Your task to perform on an android device: open app "Paramount+ | Peak Streaming" (install if not already installed) Image 0: 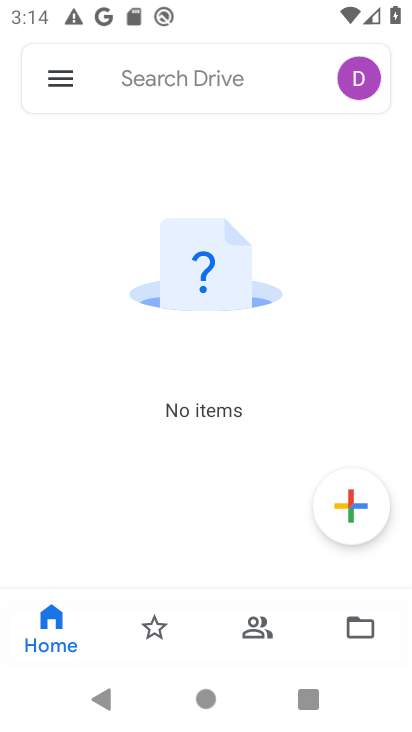
Step 0: press home button
Your task to perform on an android device: open app "Paramount+ | Peak Streaming" (install if not already installed) Image 1: 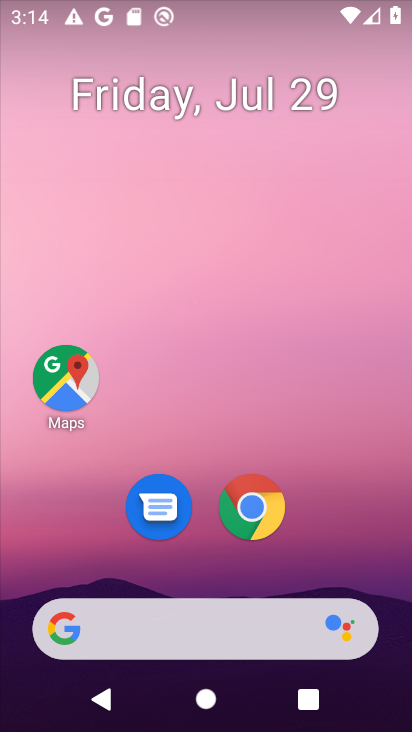
Step 1: click (237, 620)
Your task to perform on an android device: open app "Paramount+ | Peak Streaming" (install if not already installed) Image 2: 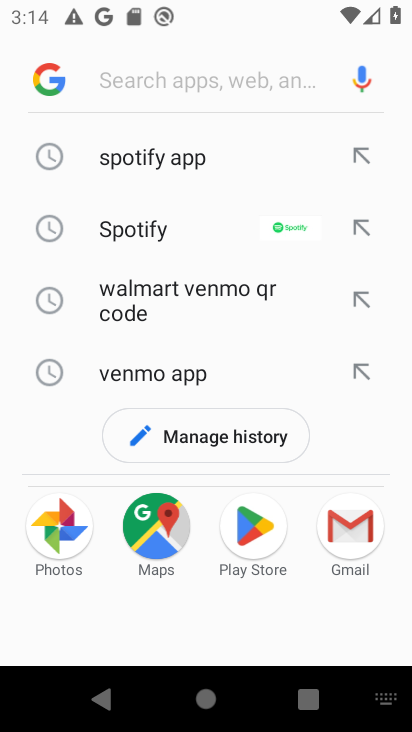
Step 2: type "paramount"
Your task to perform on an android device: open app "Paramount+ | Peak Streaming" (install if not already installed) Image 3: 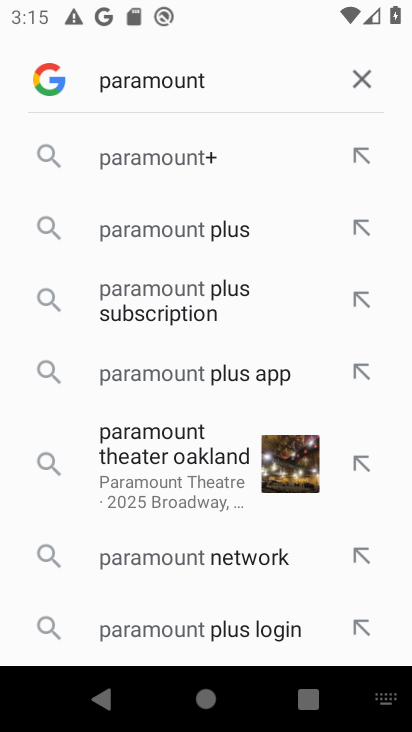
Step 3: click (172, 136)
Your task to perform on an android device: open app "Paramount+ | Peak Streaming" (install if not already installed) Image 4: 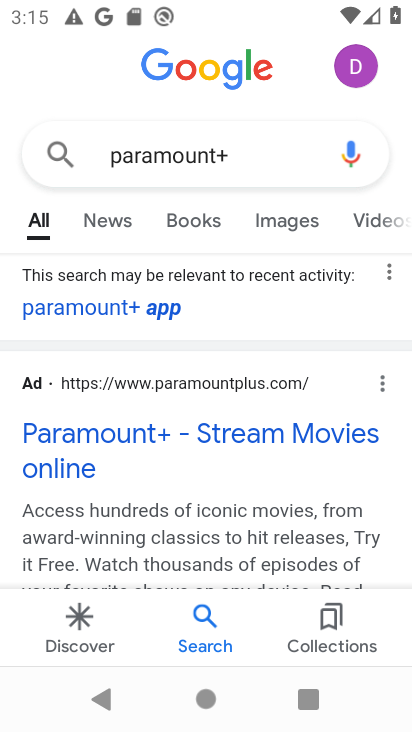
Step 4: click (194, 415)
Your task to perform on an android device: open app "Paramount+ | Peak Streaming" (install if not already installed) Image 5: 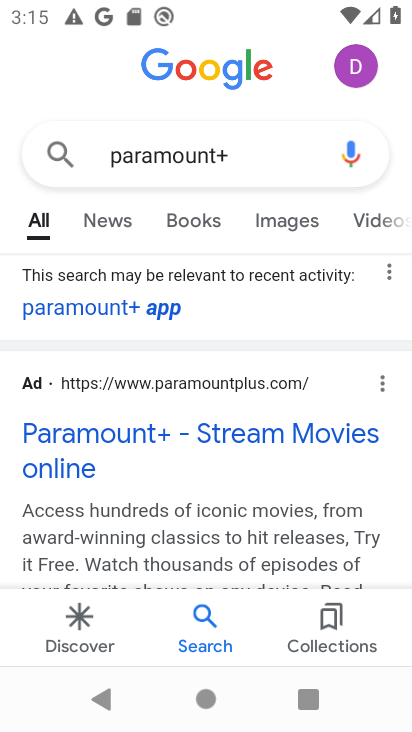
Step 5: task complete